Your task to perform on an android device: check out phone information Image 0: 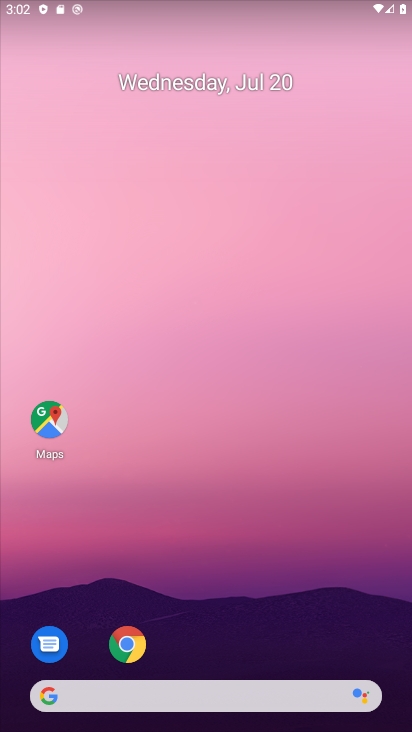
Step 0: drag from (22, 711) to (183, 20)
Your task to perform on an android device: check out phone information Image 1: 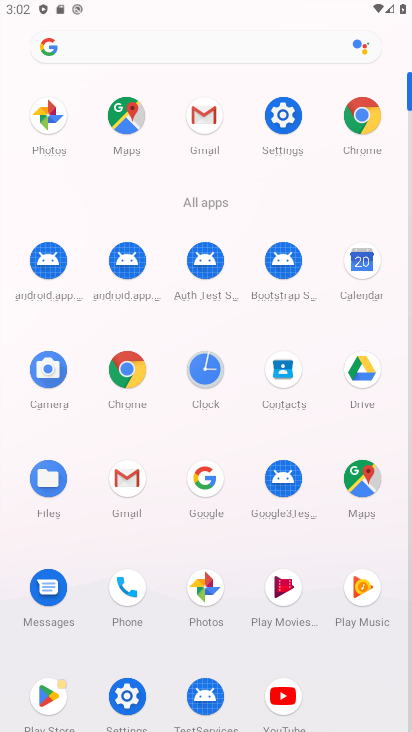
Step 1: click (114, 599)
Your task to perform on an android device: check out phone information Image 2: 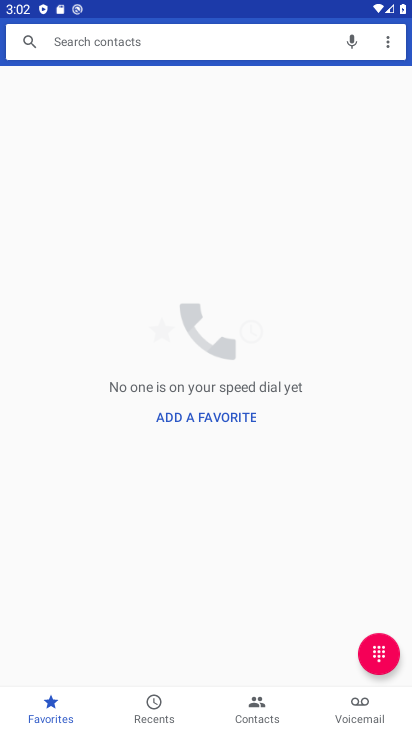
Step 2: click (147, 716)
Your task to perform on an android device: check out phone information Image 3: 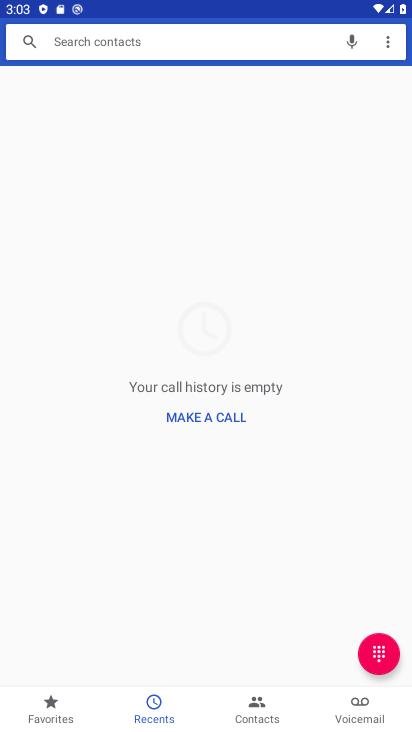
Step 3: task complete